Your task to perform on an android device: turn off priority inbox in the gmail app Image 0: 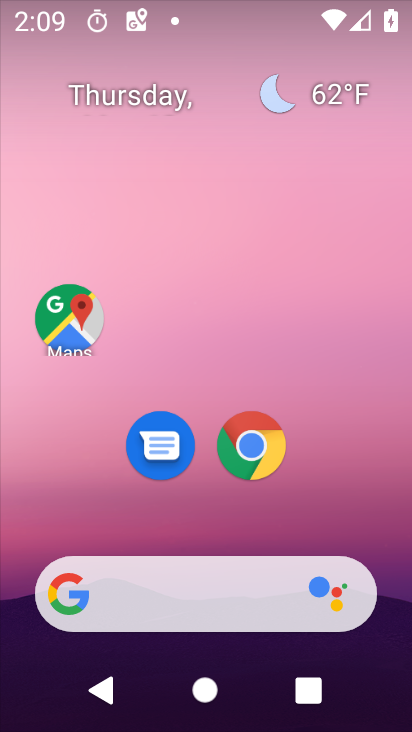
Step 0: click (202, 195)
Your task to perform on an android device: turn off priority inbox in the gmail app Image 1: 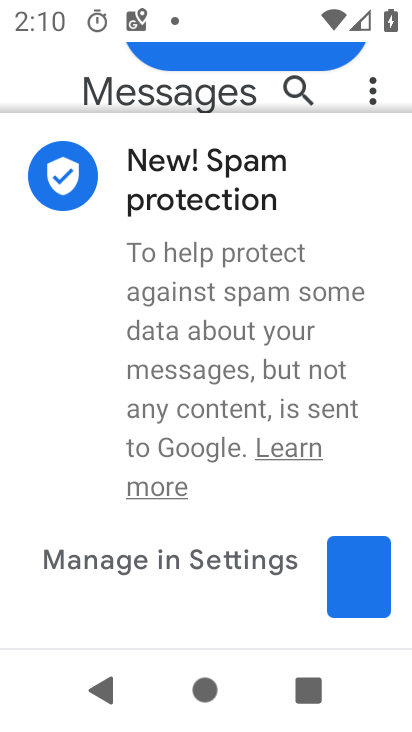
Step 1: press home button
Your task to perform on an android device: turn off priority inbox in the gmail app Image 2: 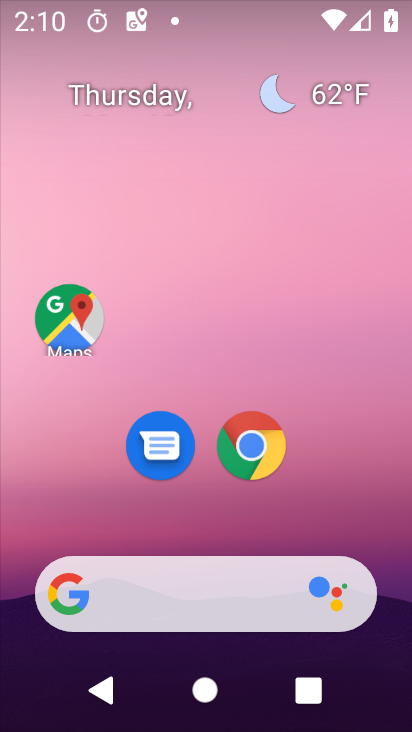
Step 2: drag from (223, 608) to (253, 227)
Your task to perform on an android device: turn off priority inbox in the gmail app Image 3: 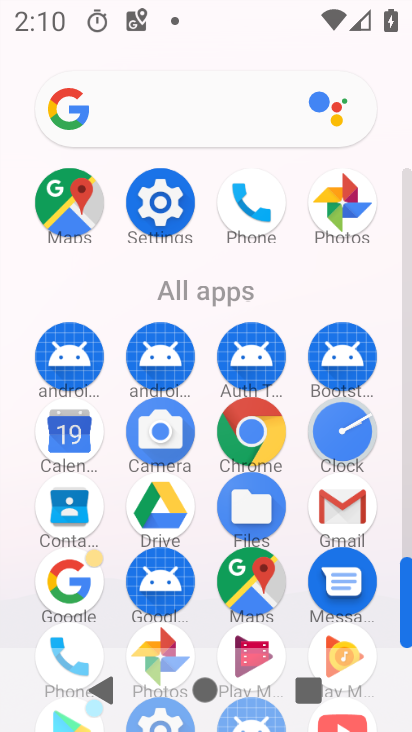
Step 3: click (331, 513)
Your task to perform on an android device: turn off priority inbox in the gmail app Image 4: 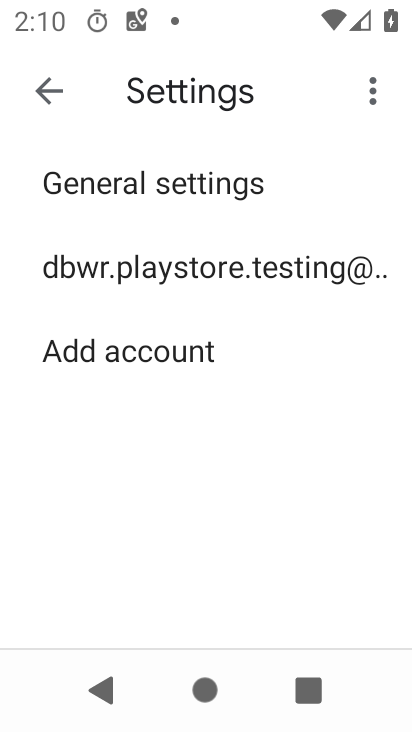
Step 4: click (117, 263)
Your task to perform on an android device: turn off priority inbox in the gmail app Image 5: 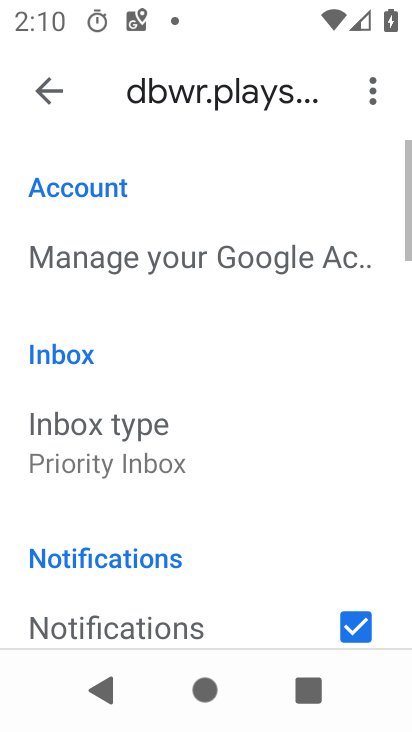
Step 5: click (186, 463)
Your task to perform on an android device: turn off priority inbox in the gmail app Image 6: 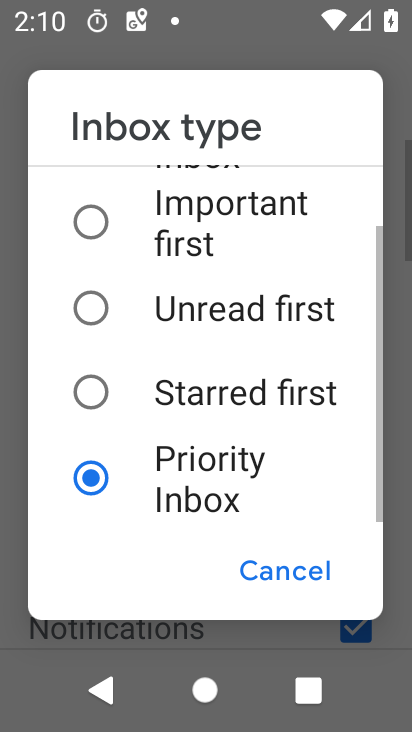
Step 6: drag from (146, 193) to (180, 538)
Your task to perform on an android device: turn off priority inbox in the gmail app Image 7: 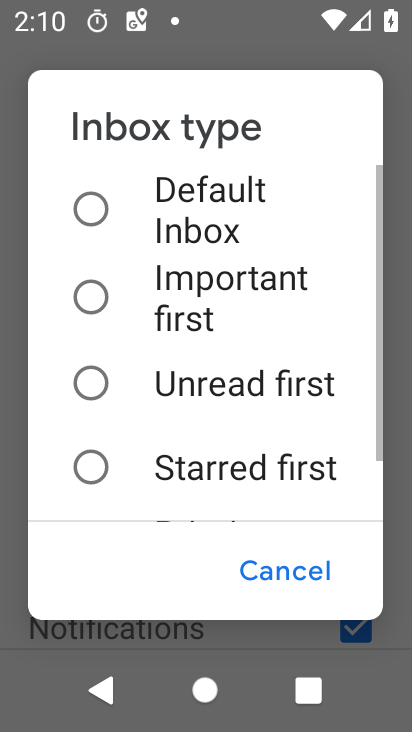
Step 7: click (108, 196)
Your task to perform on an android device: turn off priority inbox in the gmail app Image 8: 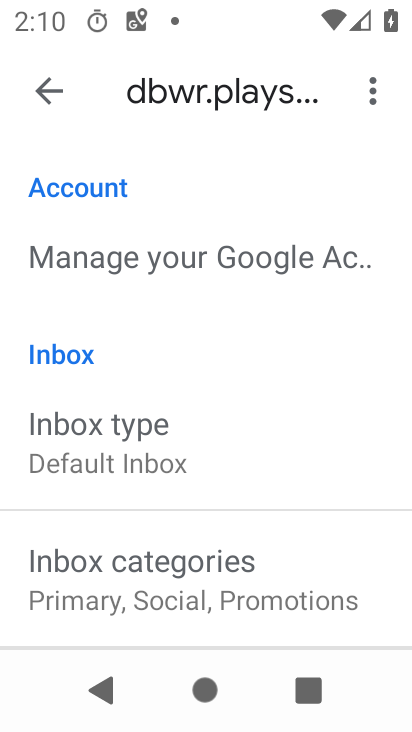
Step 8: task complete